Your task to perform on an android device: Clear the cart on amazon.com. Image 0: 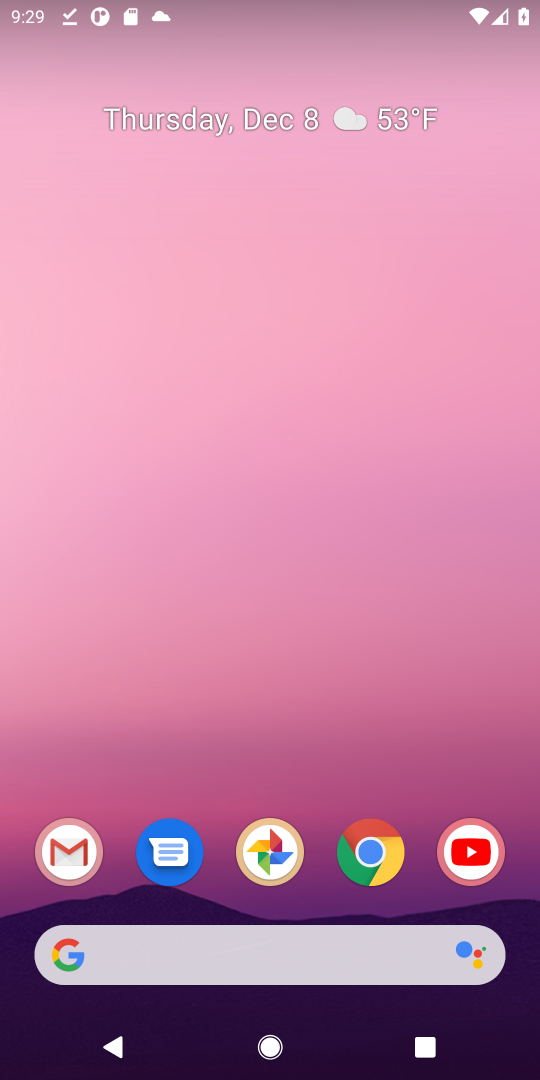
Step 0: click (260, 978)
Your task to perform on an android device: Clear the cart on amazon.com. Image 1: 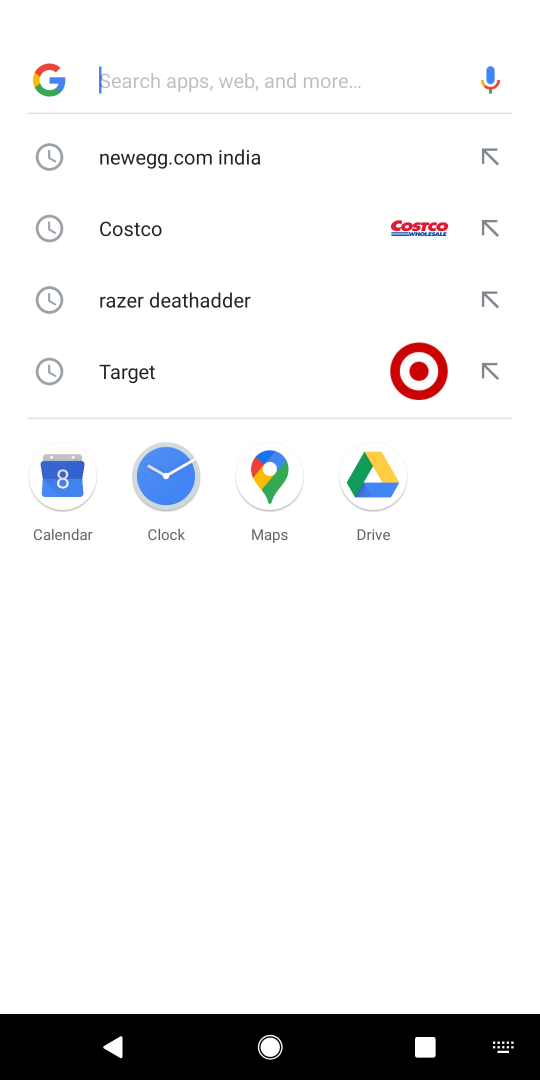
Step 1: type "amazon"
Your task to perform on an android device: Clear the cart on amazon.com. Image 2: 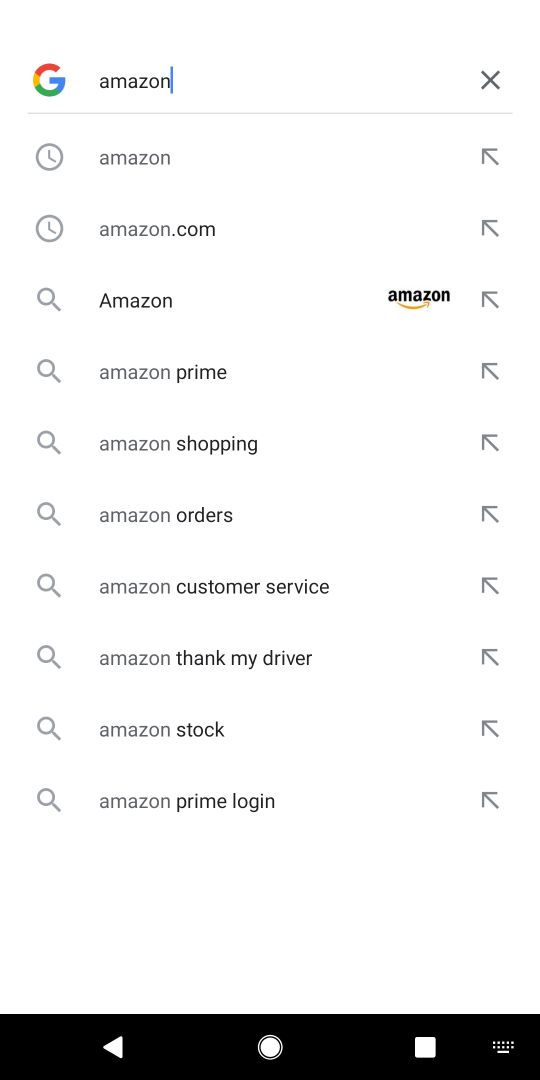
Step 2: click (183, 305)
Your task to perform on an android device: Clear the cart on amazon.com. Image 3: 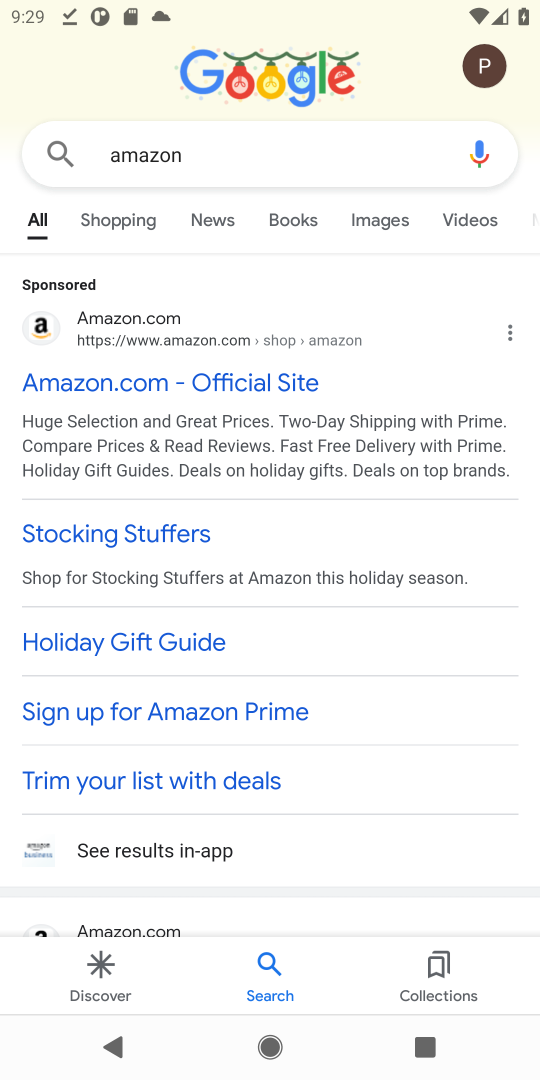
Step 3: click (119, 378)
Your task to perform on an android device: Clear the cart on amazon.com. Image 4: 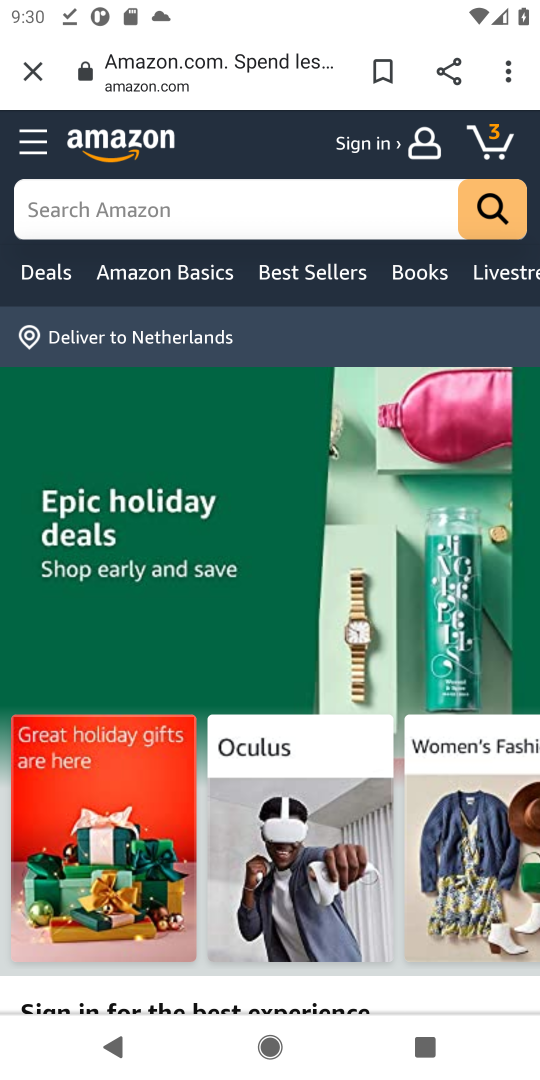
Step 4: click (231, 231)
Your task to perform on an android device: Clear the cart on amazon.com. Image 5: 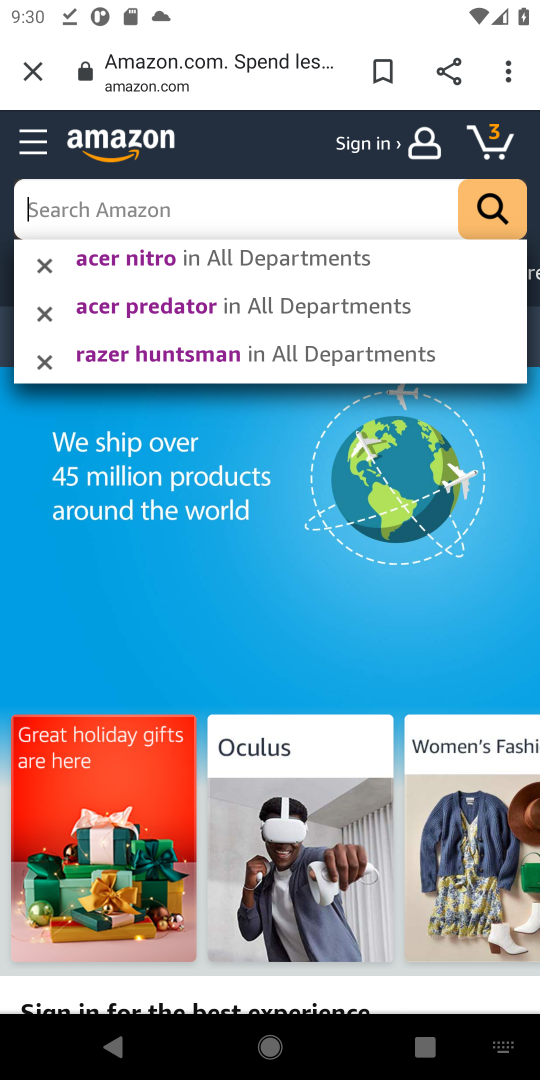
Step 5: click (506, 144)
Your task to perform on an android device: Clear the cart on amazon.com. Image 6: 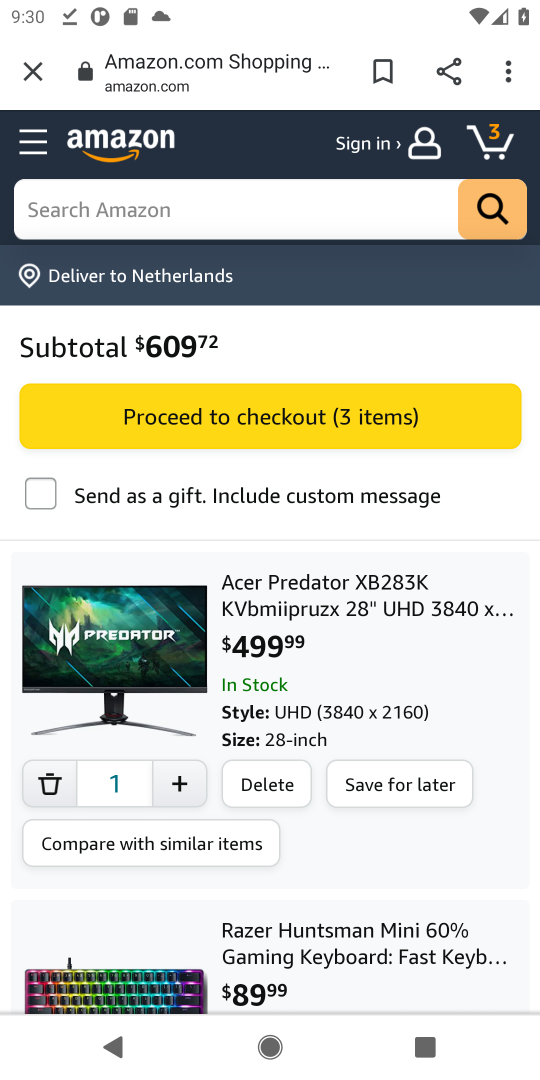
Step 6: click (287, 785)
Your task to perform on an android device: Clear the cart on amazon.com. Image 7: 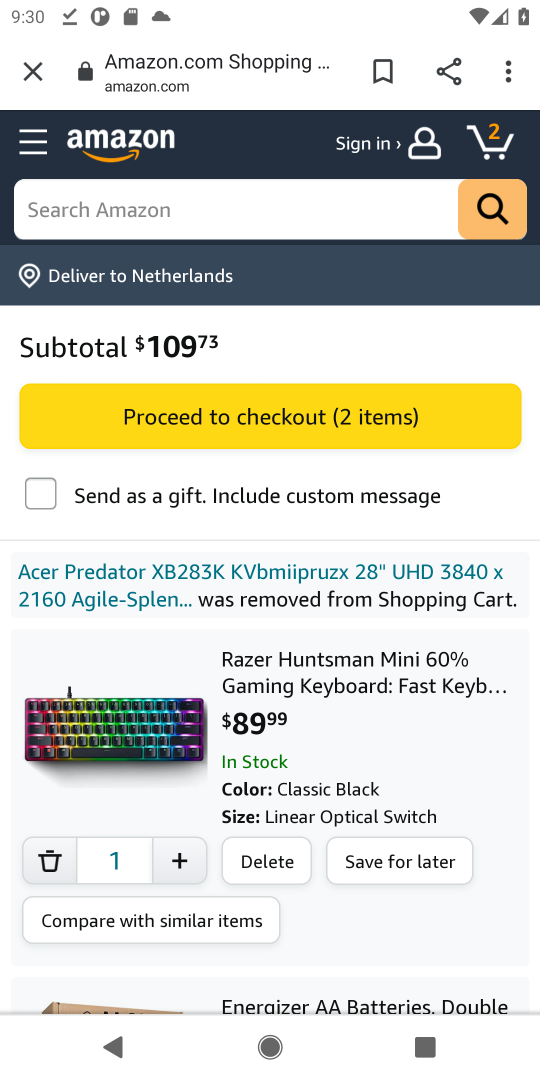
Step 7: click (267, 853)
Your task to perform on an android device: Clear the cart on amazon.com. Image 8: 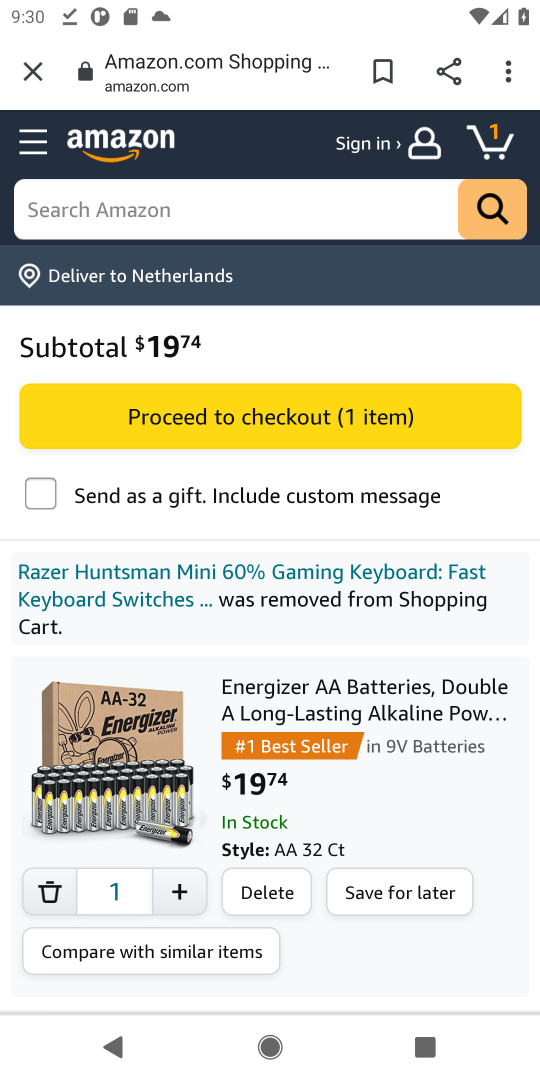
Step 8: click (259, 886)
Your task to perform on an android device: Clear the cart on amazon.com. Image 9: 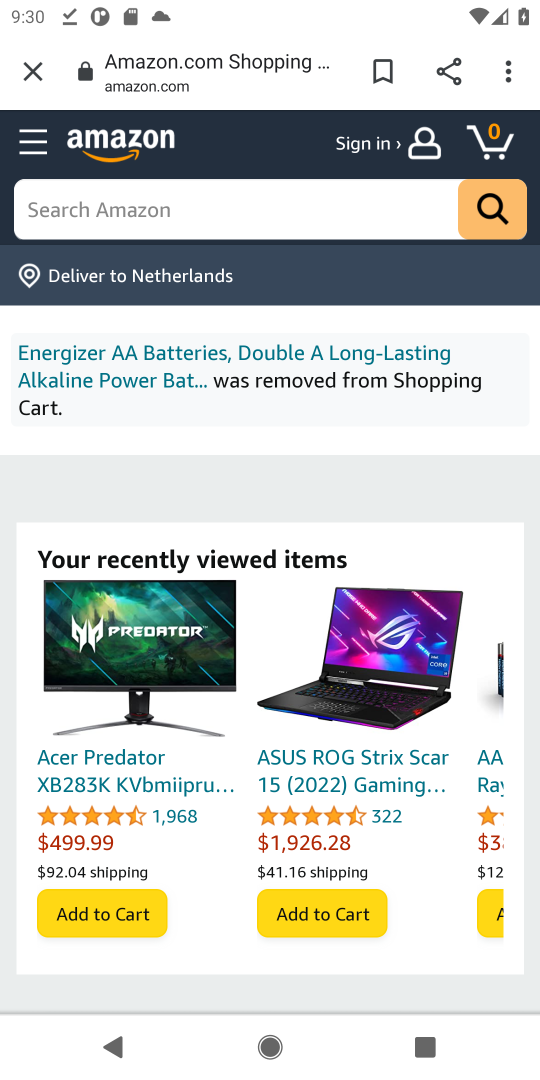
Step 9: task complete